Your task to perform on an android device: turn off notifications in google photos Image 0: 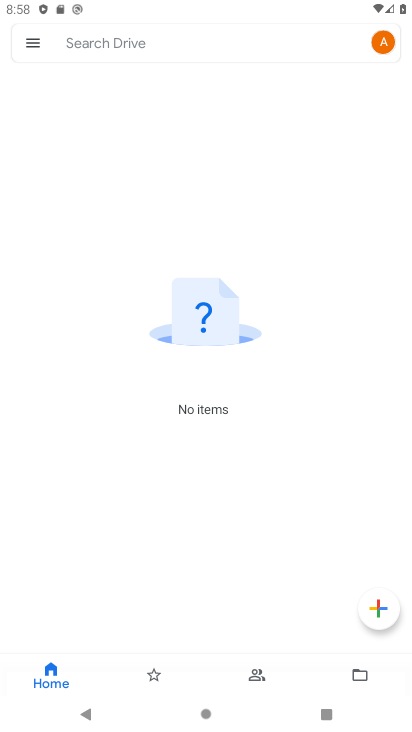
Step 0: press back button
Your task to perform on an android device: turn off notifications in google photos Image 1: 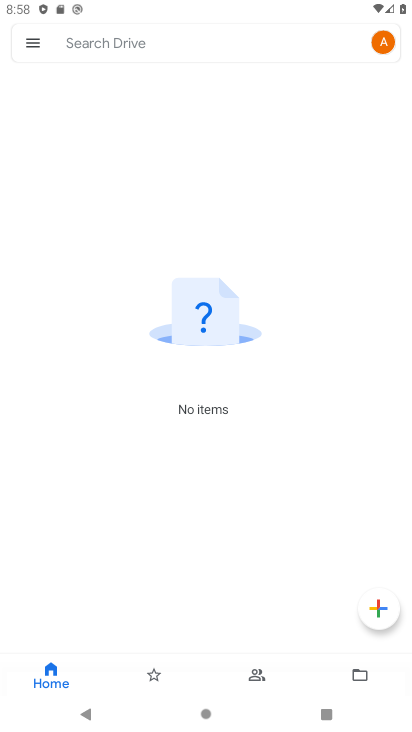
Step 1: press back button
Your task to perform on an android device: turn off notifications in google photos Image 2: 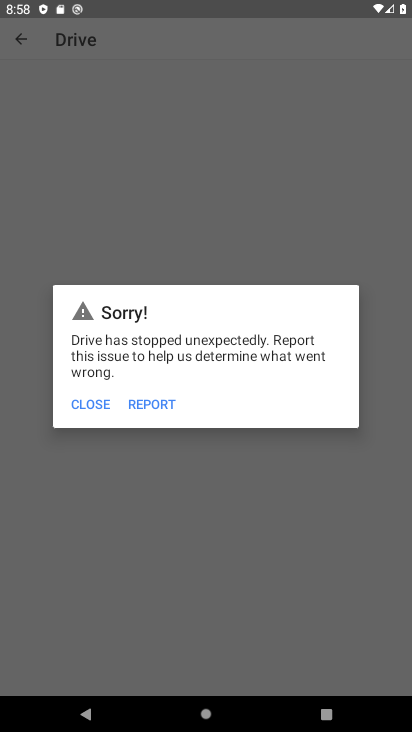
Step 2: click (91, 396)
Your task to perform on an android device: turn off notifications in google photos Image 3: 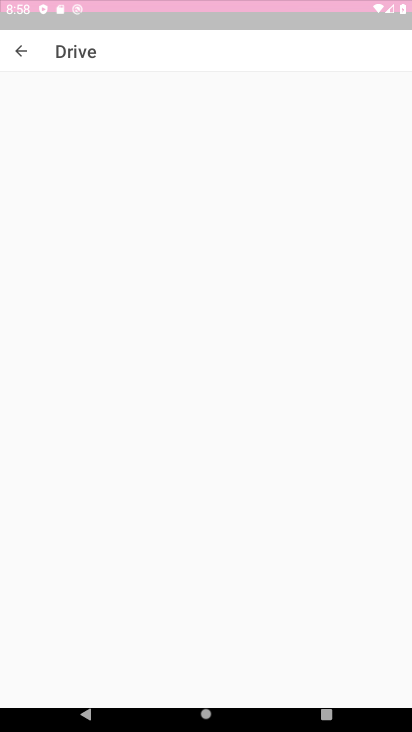
Step 3: click (93, 397)
Your task to perform on an android device: turn off notifications in google photos Image 4: 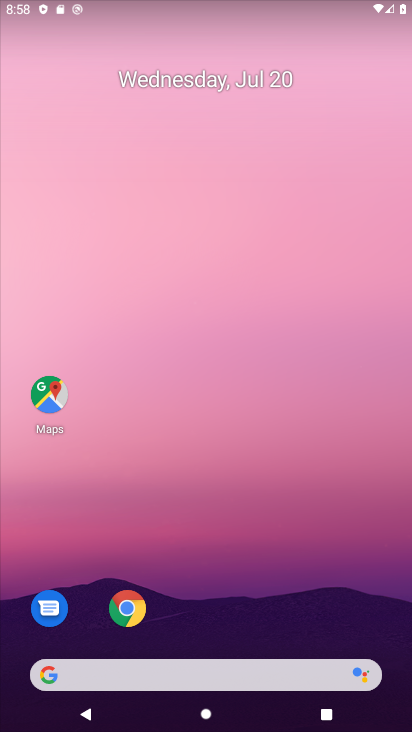
Step 4: drag from (227, 614) to (171, 141)
Your task to perform on an android device: turn off notifications in google photos Image 5: 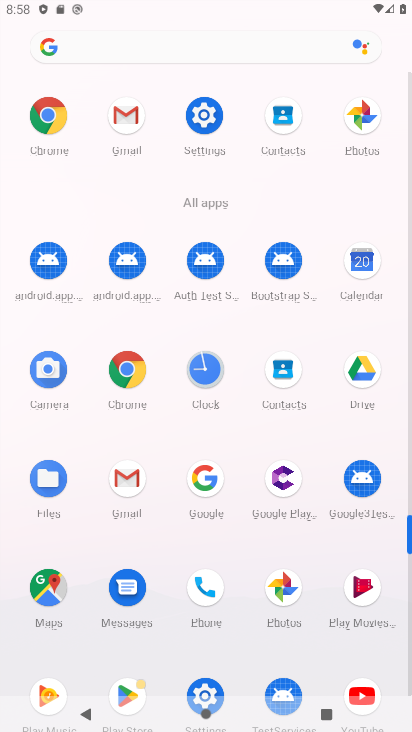
Step 5: click (294, 578)
Your task to perform on an android device: turn off notifications in google photos Image 6: 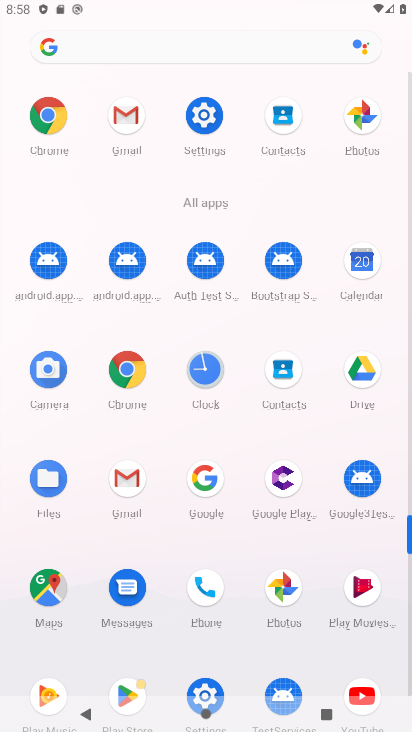
Step 6: click (285, 578)
Your task to perform on an android device: turn off notifications in google photos Image 7: 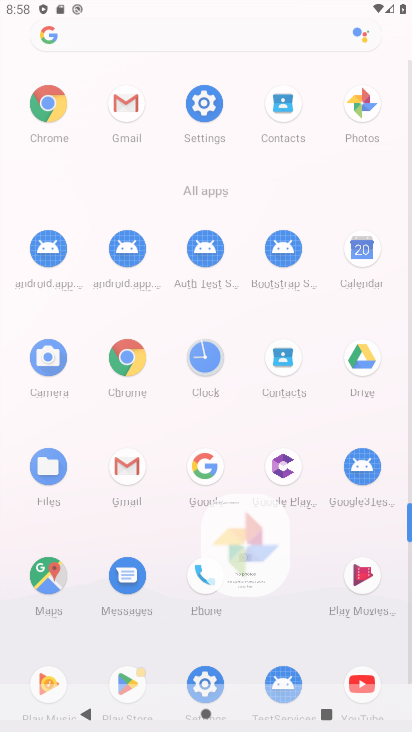
Step 7: click (285, 578)
Your task to perform on an android device: turn off notifications in google photos Image 8: 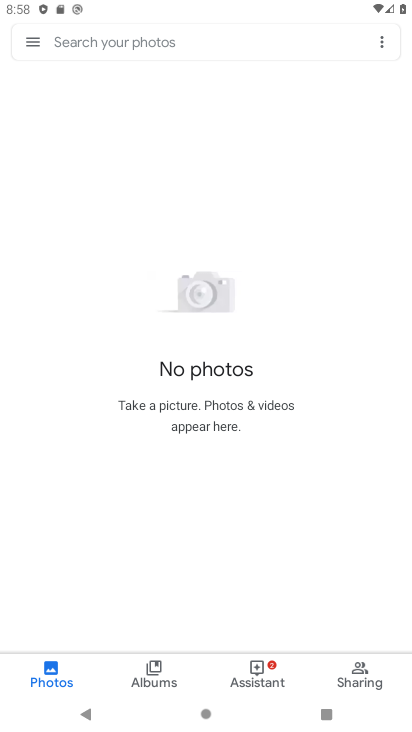
Step 8: click (21, 43)
Your task to perform on an android device: turn off notifications in google photos Image 9: 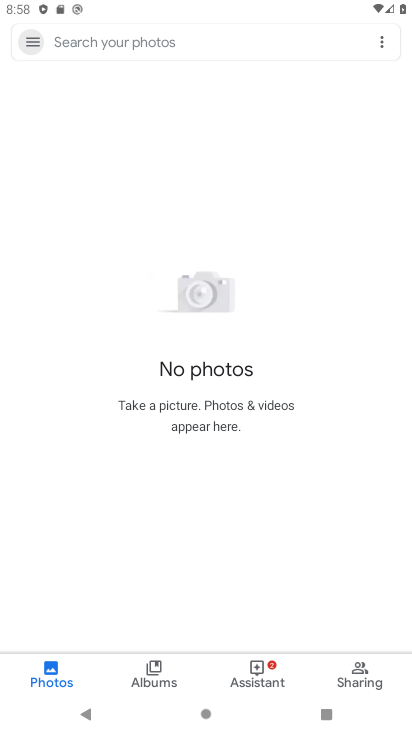
Step 9: click (22, 44)
Your task to perform on an android device: turn off notifications in google photos Image 10: 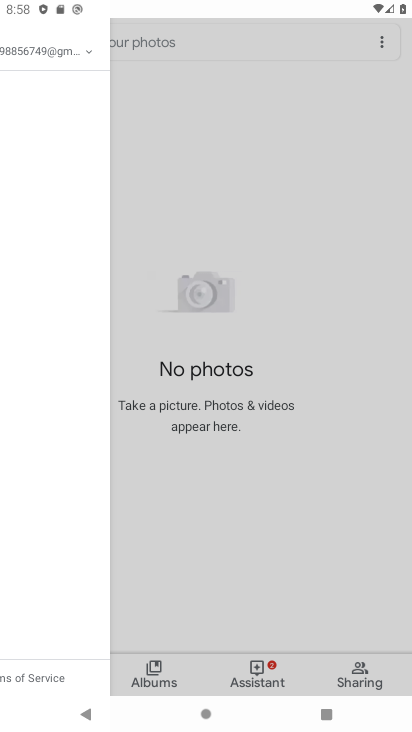
Step 10: click (22, 46)
Your task to perform on an android device: turn off notifications in google photos Image 11: 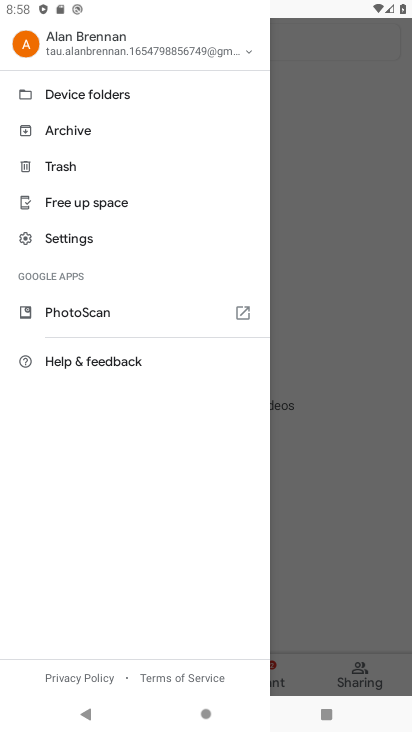
Step 11: click (78, 237)
Your task to perform on an android device: turn off notifications in google photos Image 12: 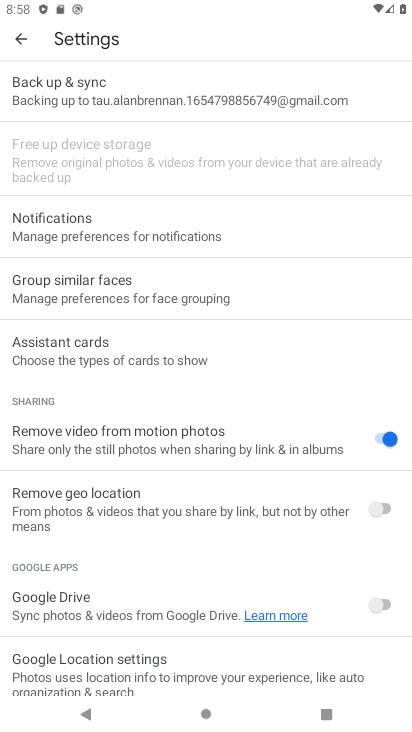
Step 12: click (65, 229)
Your task to perform on an android device: turn off notifications in google photos Image 13: 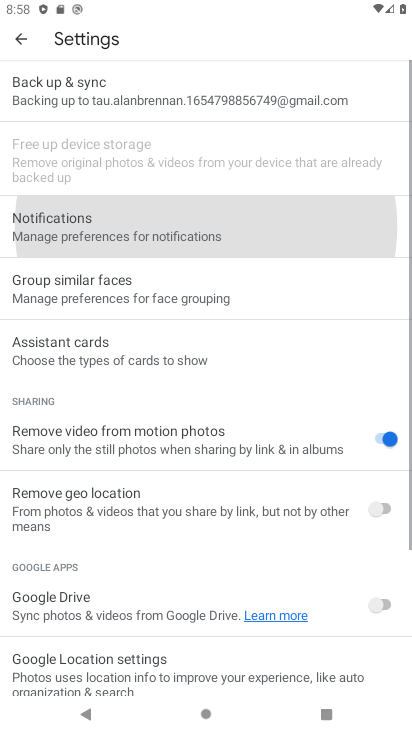
Step 13: click (64, 230)
Your task to perform on an android device: turn off notifications in google photos Image 14: 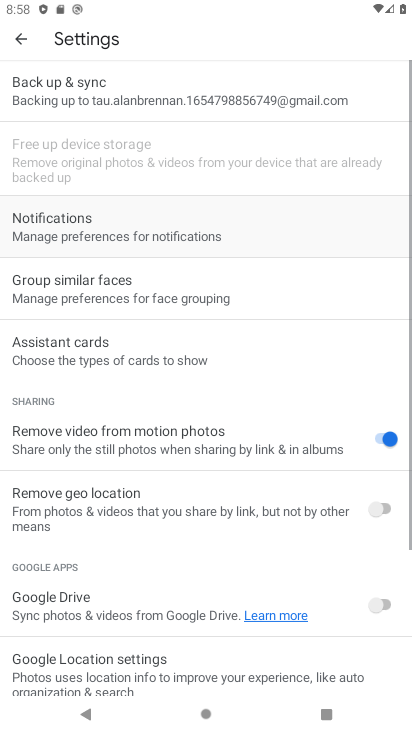
Step 14: click (64, 231)
Your task to perform on an android device: turn off notifications in google photos Image 15: 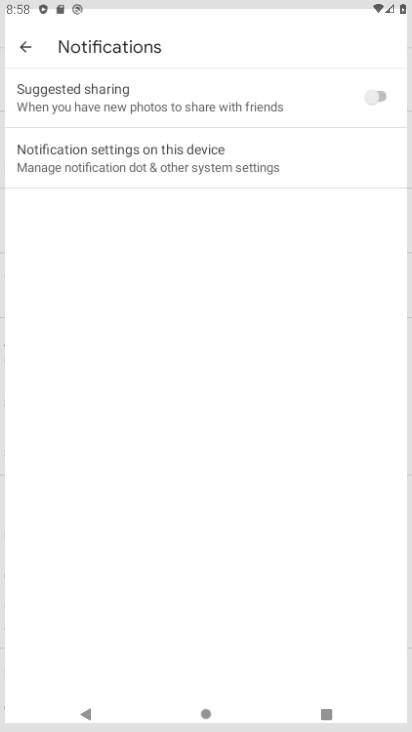
Step 15: click (65, 231)
Your task to perform on an android device: turn off notifications in google photos Image 16: 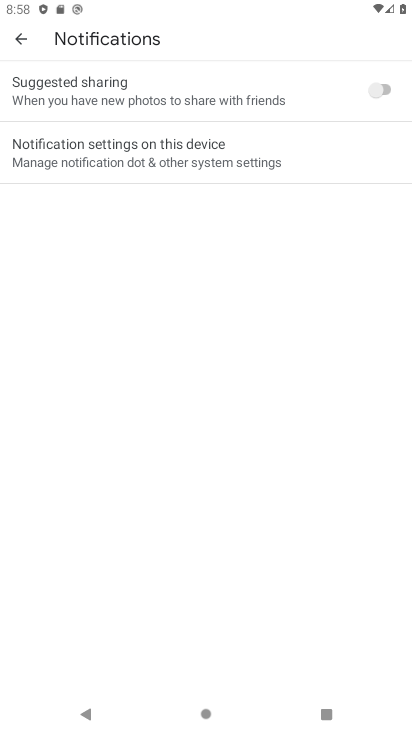
Step 16: click (149, 151)
Your task to perform on an android device: turn off notifications in google photos Image 17: 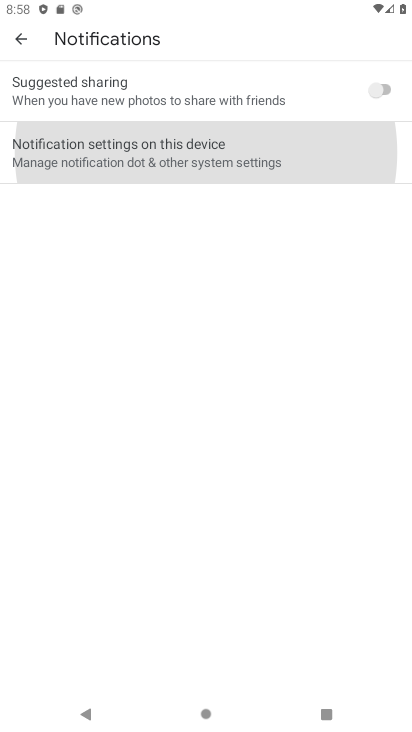
Step 17: click (150, 148)
Your task to perform on an android device: turn off notifications in google photos Image 18: 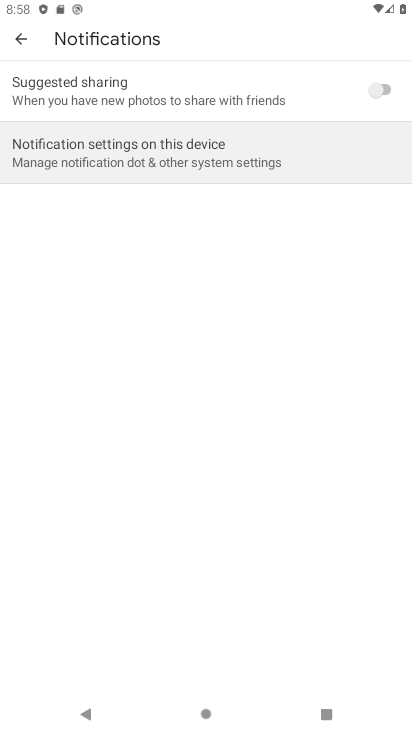
Step 18: click (151, 148)
Your task to perform on an android device: turn off notifications in google photos Image 19: 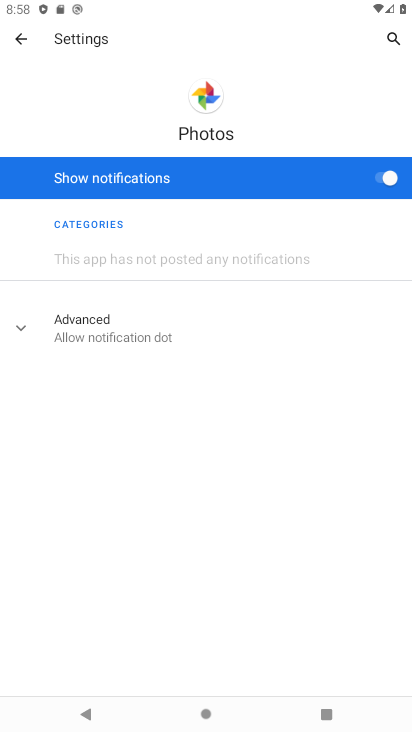
Step 19: click (388, 176)
Your task to perform on an android device: turn off notifications in google photos Image 20: 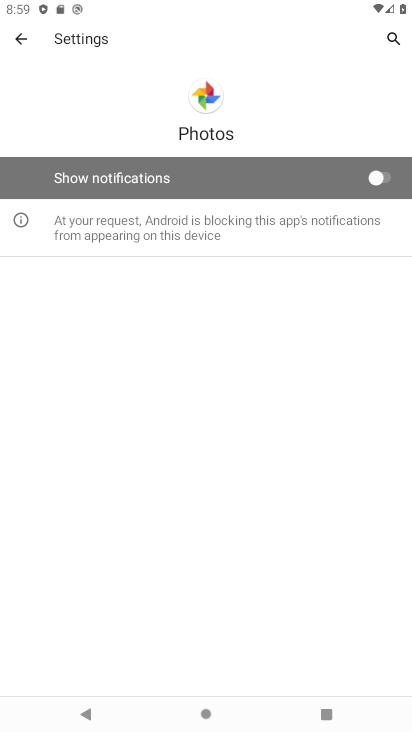
Step 20: task complete